Your task to perform on an android device: empty trash in the gmail app Image 0: 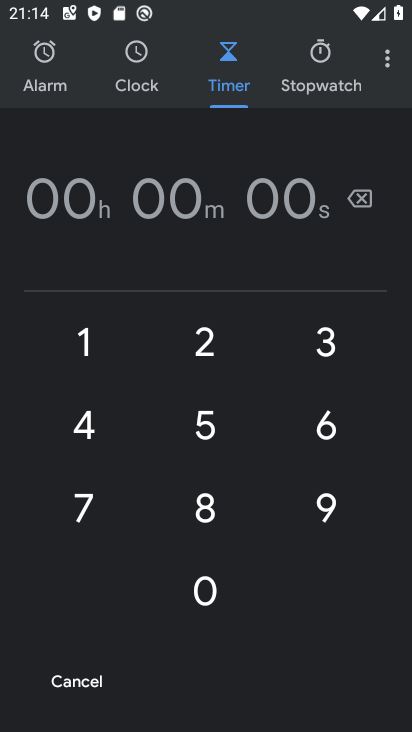
Step 0: press home button
Your task to perform on an android device: empty trash in the gmail app Image 1: 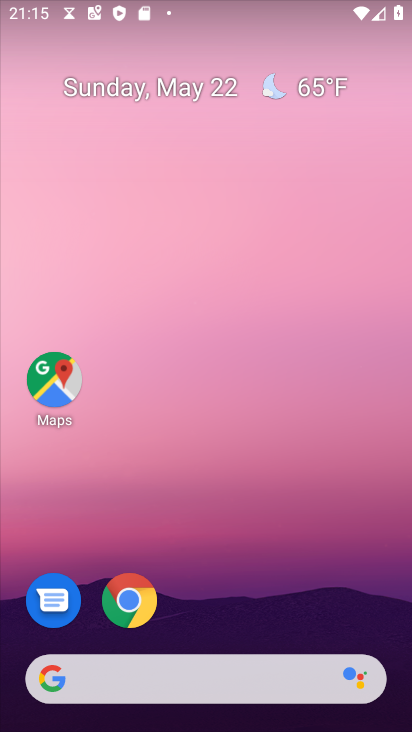
Step 1: drag from (190, 622) to (138, 202)
Your task to perform on an android device: empty trash in the gmail app Image 2: 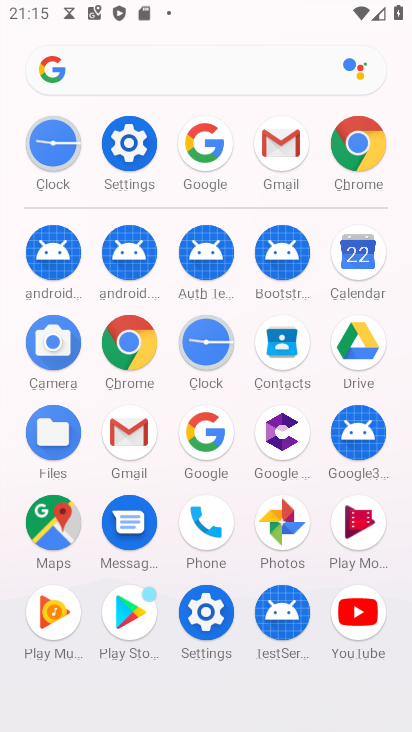
Step 2: click (138, 463)
Your task to perform on an android device: empty trash in the gmail app Image 3: 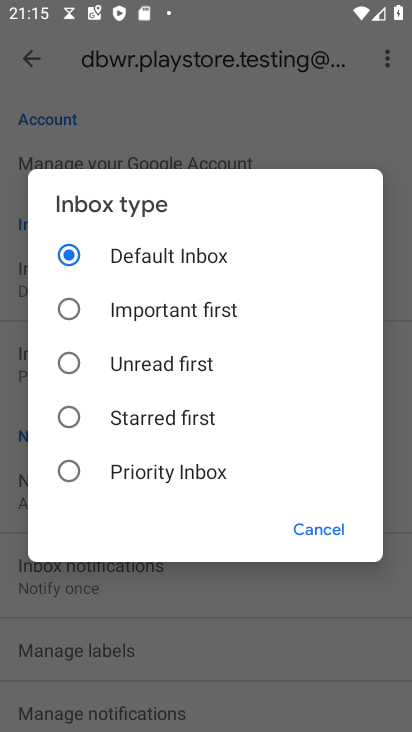
Step 3: press back button
Your task to perform on an android device: empty trash in the gmail app Image 4: 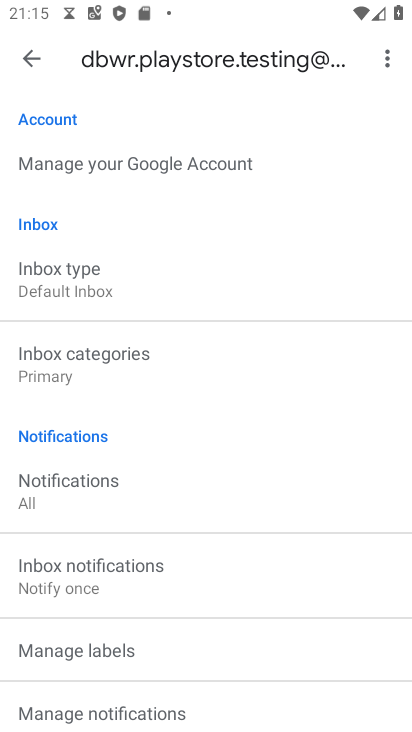
Step 4: drag from (134, 646) to (136, 282)
Your task to perform on an android device: empty trash in the gmail app Image 5: 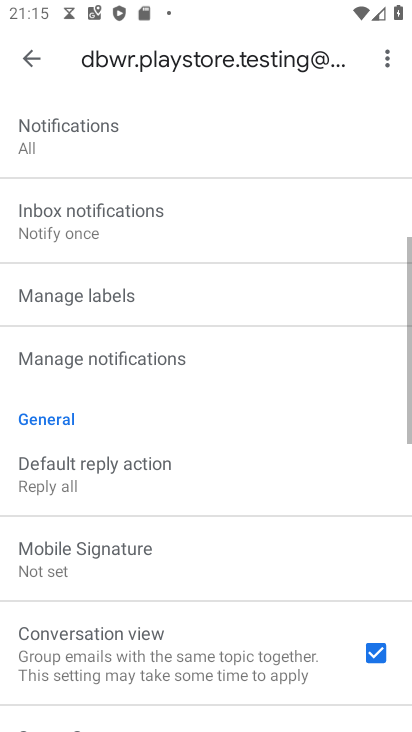
Step 5: click (27, 65)
Your task to perform on an android device: empty trash in the gmail app Image 6: 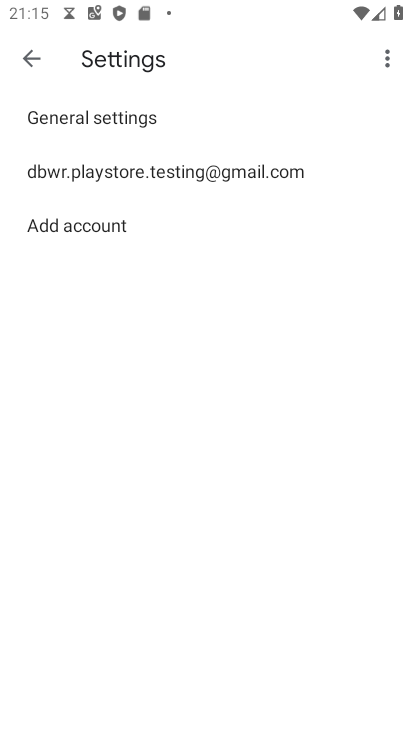
Step 6: click (27, 65)
Your task to perform on an android device: empty trash in the gmail app Image 7: 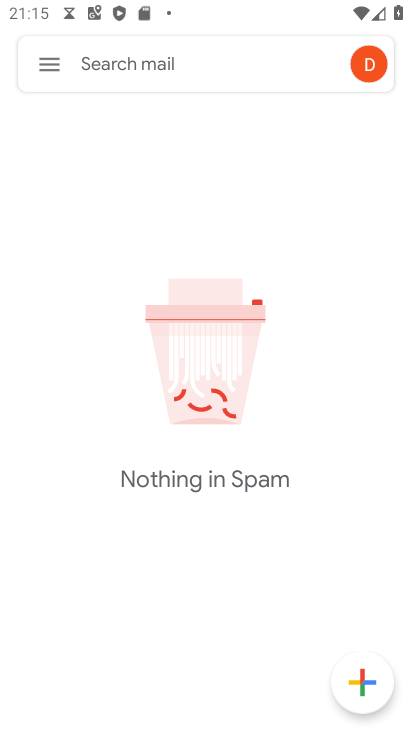
Step 7: click (40, 69)
Your task to perform on an android device: empty trash in the gmail app Image 8: 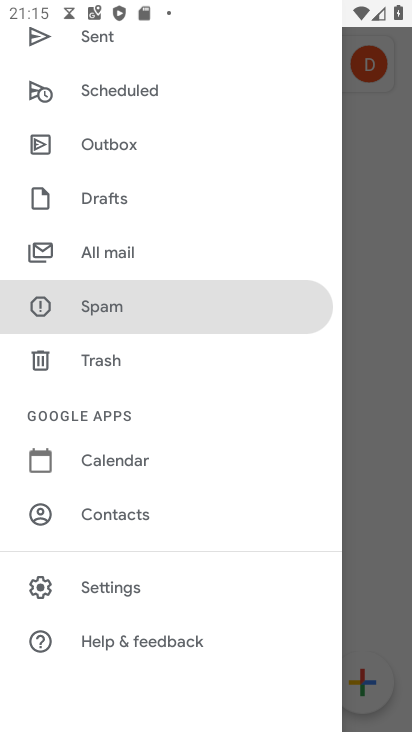
Step 8: click (104, 363)
Your task to perform on an android device: empty trash in the gmail app Image 9: 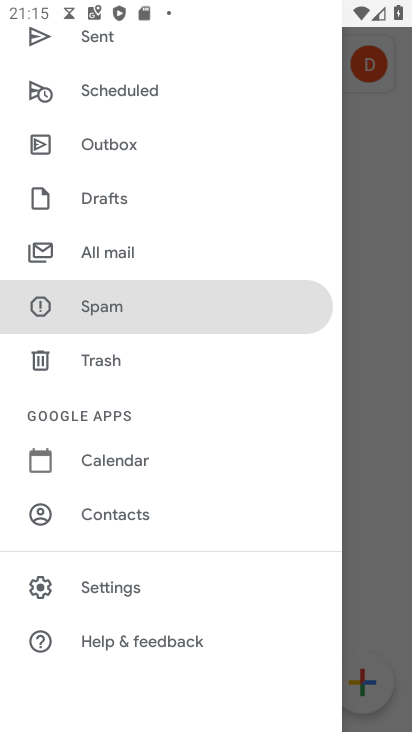
Step 9: click (106, 367)
Your task to perform on an android device: empty trash in the gmail app Image 10: 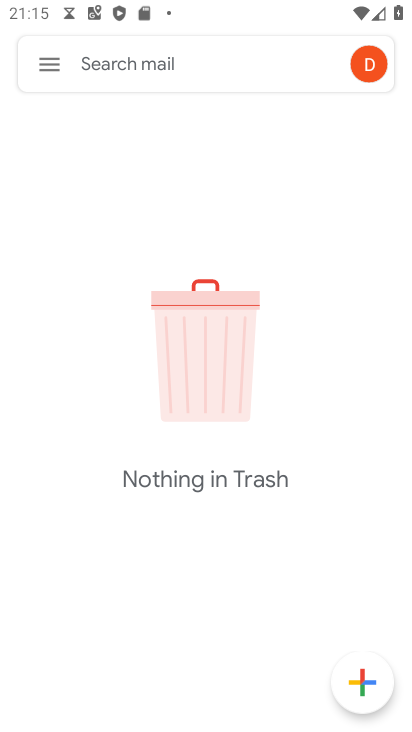
Step 10: task complete